Your task to perform on an android device: Is it going to rain this weekend? Image 0: 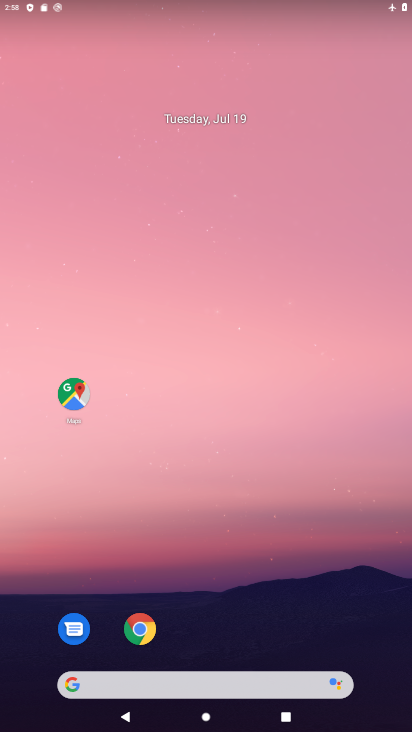
Step 0: click (211, 104)
Your task to perform on an android device: Is it going to rain this weekend? Image 1: 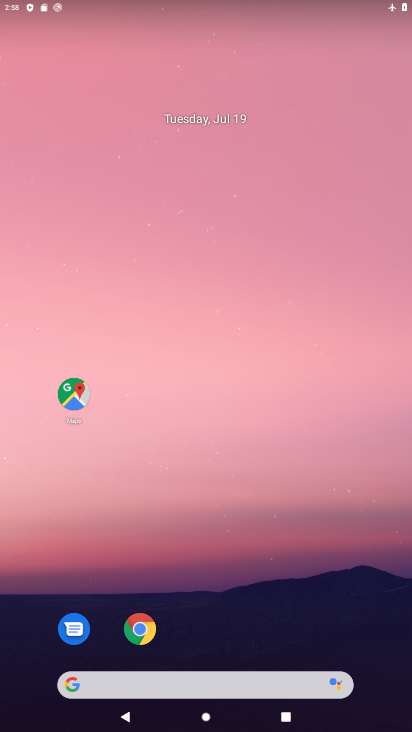
Step 1: drag from (381, 658) to (337, 97)
Your task to perform on an android device: Is it going to rain this weekend? Image 2: 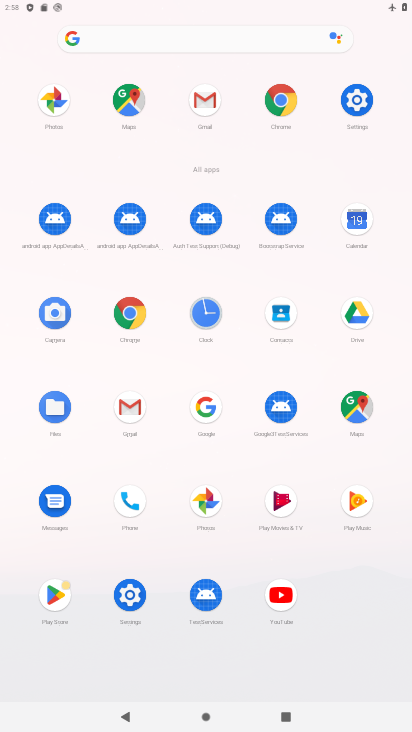
Step 2: click (274, 105)
Your task to perform on an android device: Is it going to rain this weekend? Image 3: 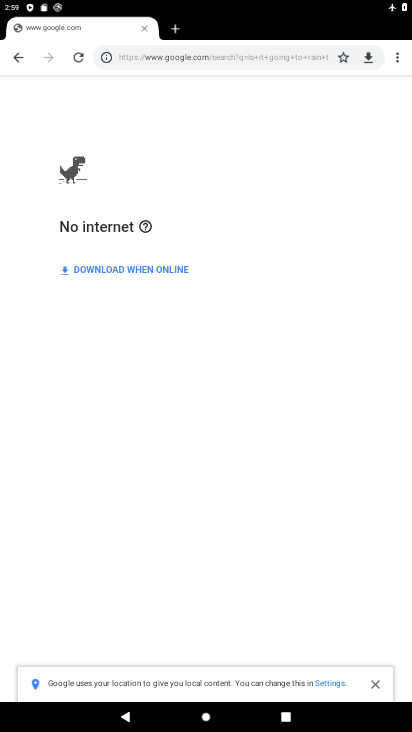
Step 3: click (213, 57)
Your task to perform on an android device: Is it going to rain this weekend? Image 4: 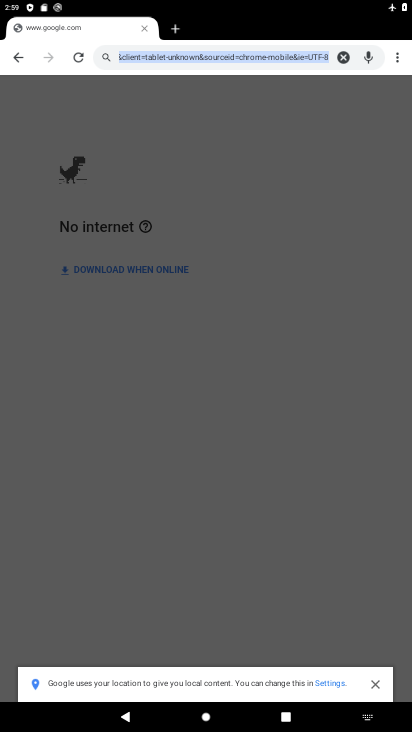
Step 4: type "Is it going to rain this weekend?"
Your task to perform on an android device: Is it going to rain this weekend? Image 5: 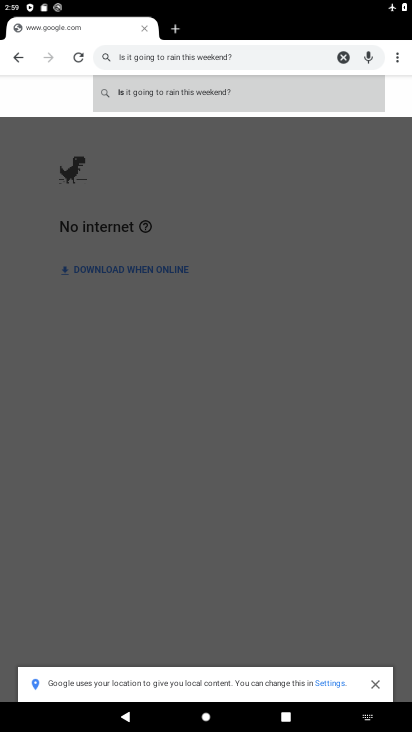
Step 5: click (199, 89)
Your task to perform on an android device: Is it going to rain this weekend? Image 6: 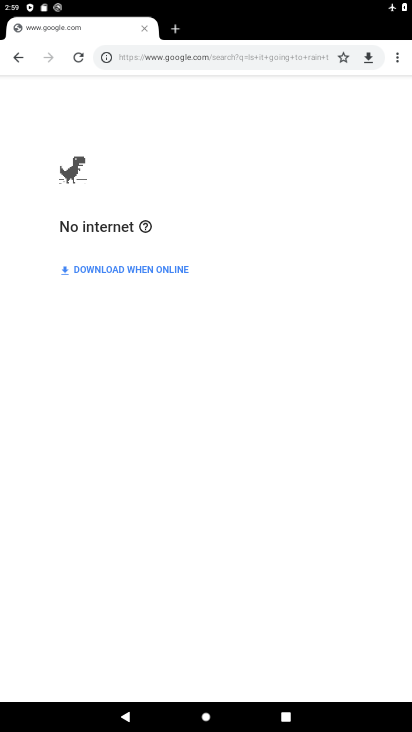
Step 6: task complete